Your task to perform on an android device: Open Google Chrome Image 0: 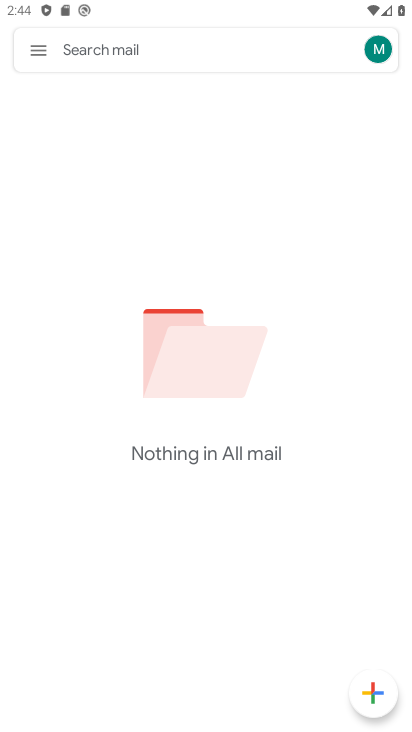
Step 0: press home button
Your task to perform on an android device: Open Google Chrome Image 1: 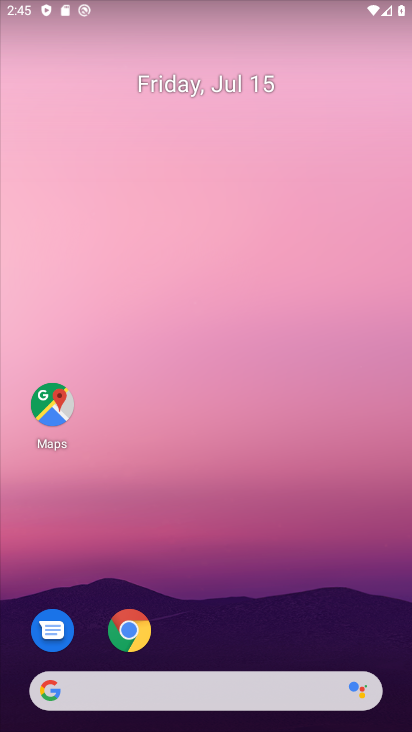
Step 1: click (143, 640)
Your task to perform on an android device: Open Google Chrome Image 2: 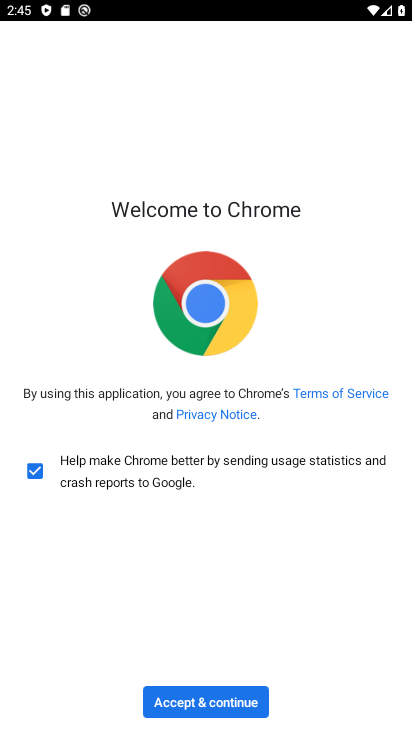
Step 2: click (202, 701)
Your task to perform on an android device: Open Google Chrome Image 3: 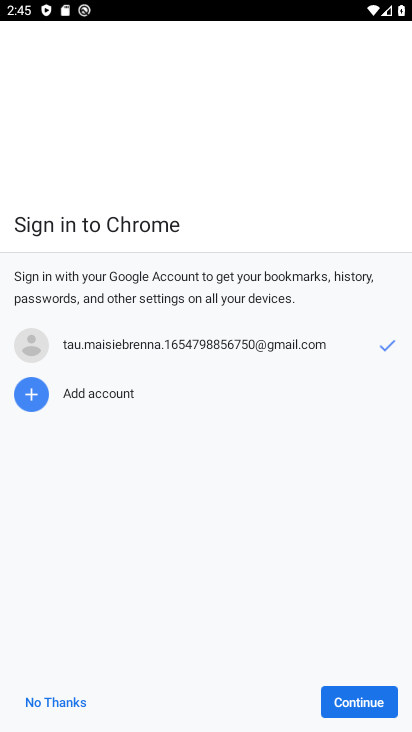
Step 3: click (373, 697)
Your task to perform on an android device: Open Google Chrome Image 4: 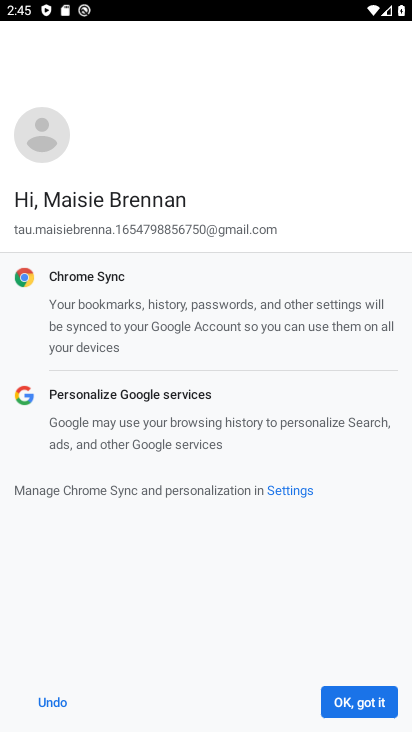
Step 4: click (371, 708)
Your task to perform on an android device: Open Google Chrome Image 5: 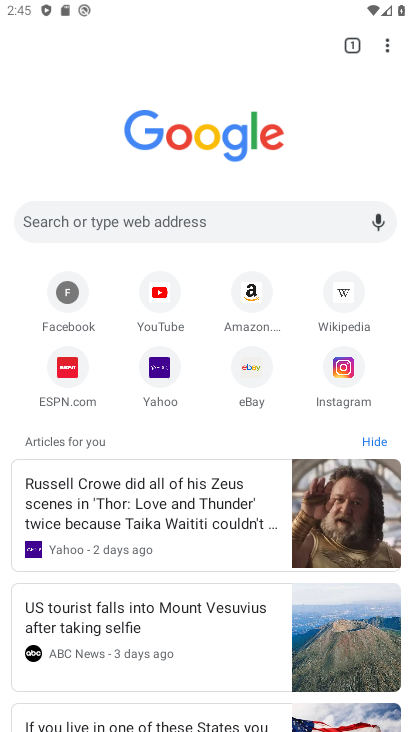
Step 5: task complete